Your task to perform on an android device: empty trash in the gmail app Image 0: 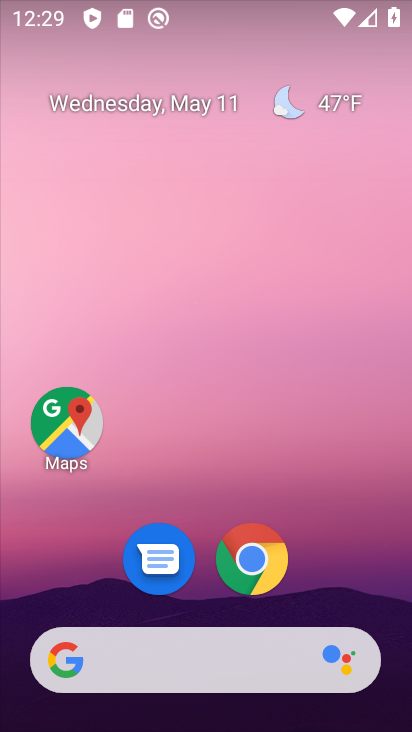
Step 0: drag from (226, 594) to (266, 54)
Your task to perform on an android device: empty trash in the gmail app Image 1: 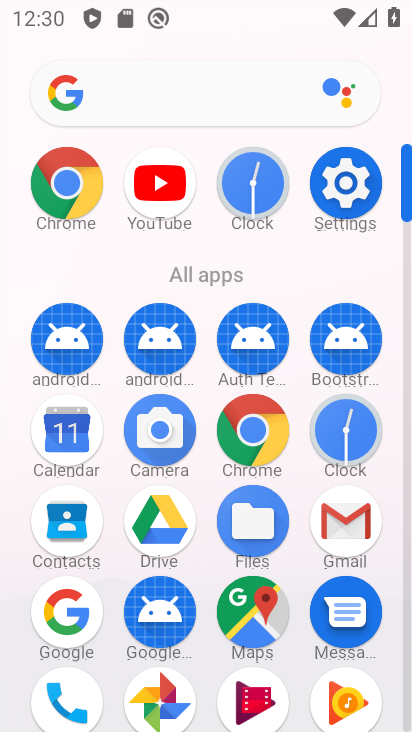
Step 1: click (331, 540)
Your task to perform on an android device: empty trash in the gmail app Image 2: 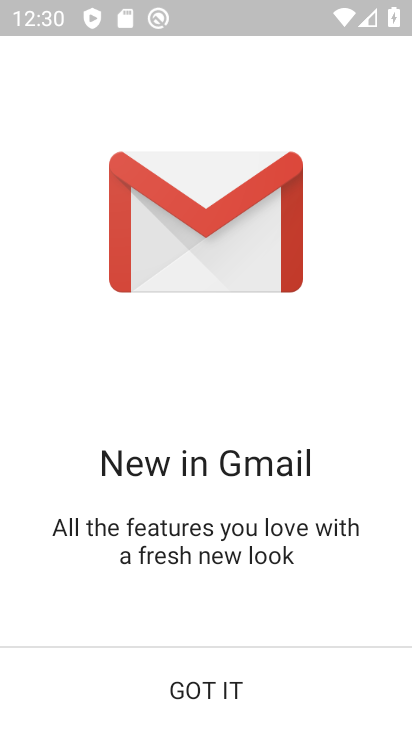
Step 2: click (240, 684)
Your task to perform on an android device: empty trash in the gmail app Image 3: 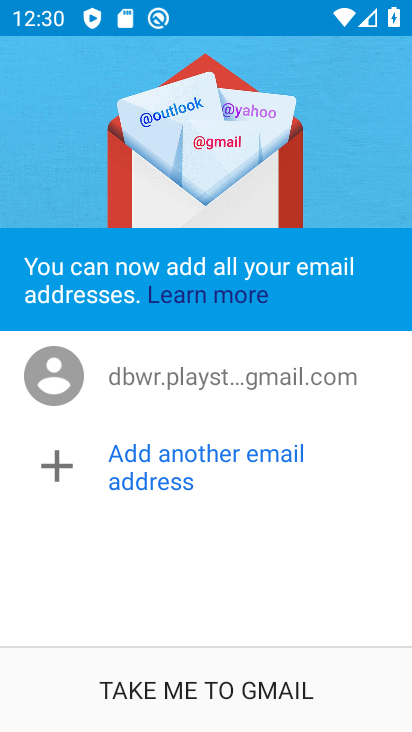
Step 3: click (193, 700)
Your task to perform on an android device: empty trash in the gmail app Image 4: 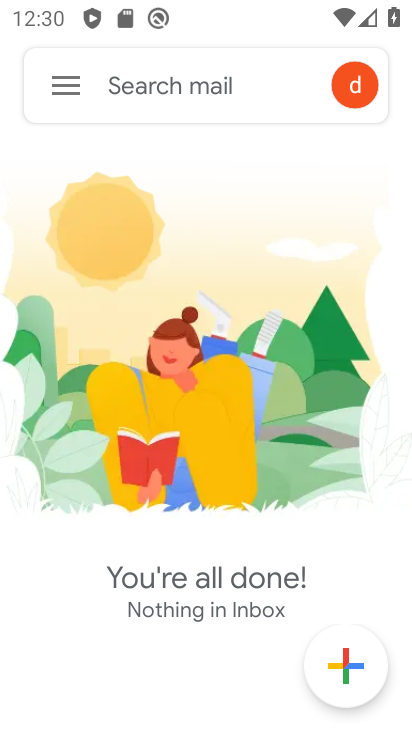
Step 4: click (77, 81)
Your task to perform on an android device: empty trash in the gmail app Image 5: 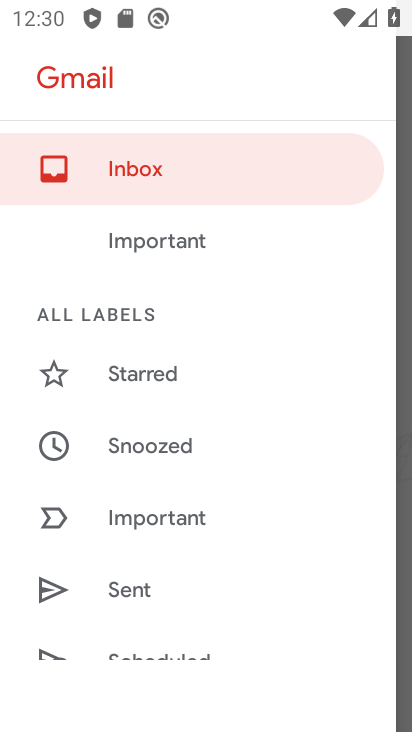
Step 5: drag from (134, 555) to (175, 195)
Your task to perform on an android device: empty trash in the gmail app Image 6: 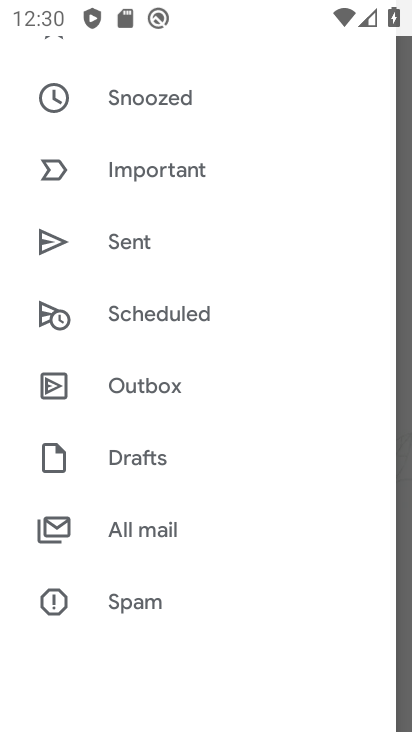
Step 6: drag from (139, 585) to (168, 263)
Your task to perform on an android device: empty trash in the gmail app Image 7: 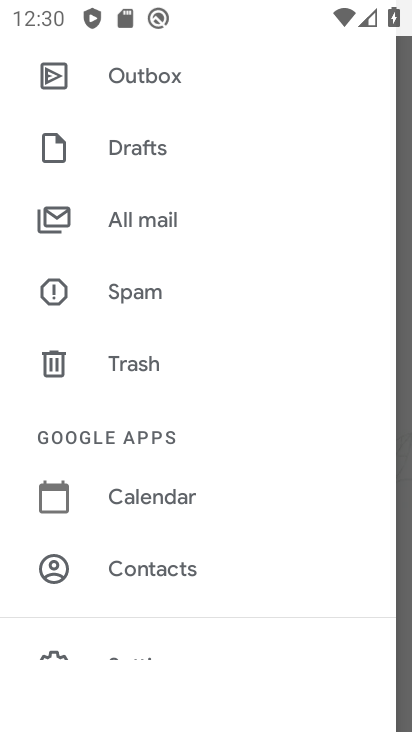
Step 7: click (133, 377)
Your task to perform on an android device: empty trash in the gmail app Image 8: 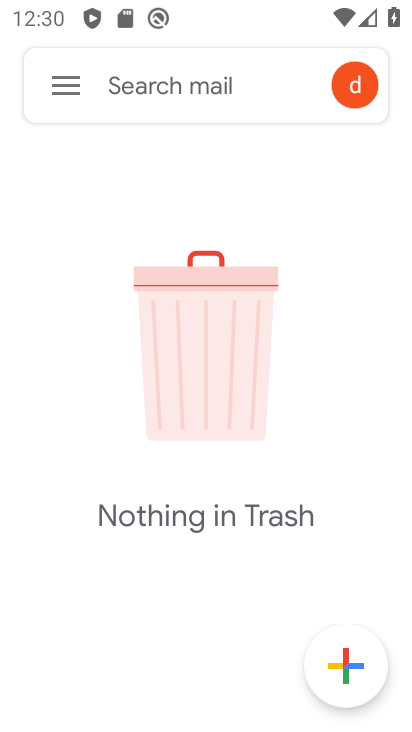
Step 8: task complete